Your task to perform on an android device: Open Amazon Image 0: 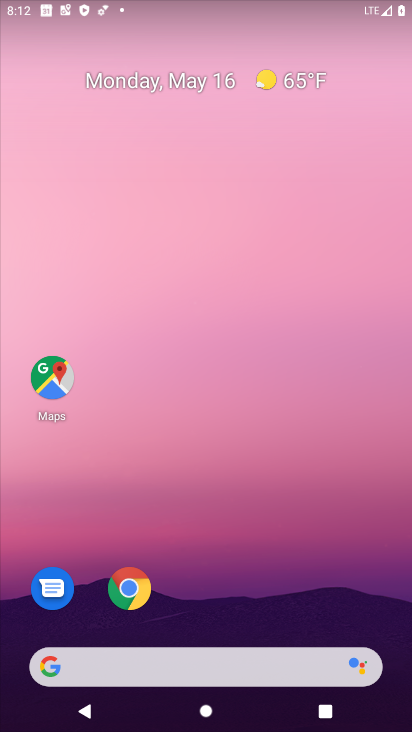
Step 0: drag from (226, 557) to (193, 0)
Your task to perform on an android device: Open Amazon Image 1: 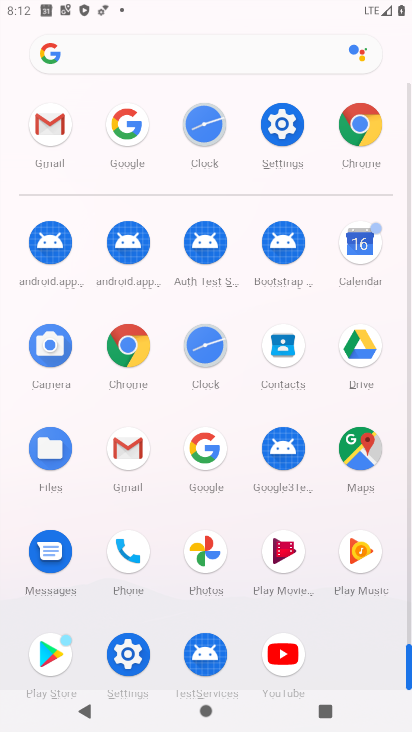
Step 1: click (131, 340)
Your task to perform on an android device: Open Amazon Image 2: 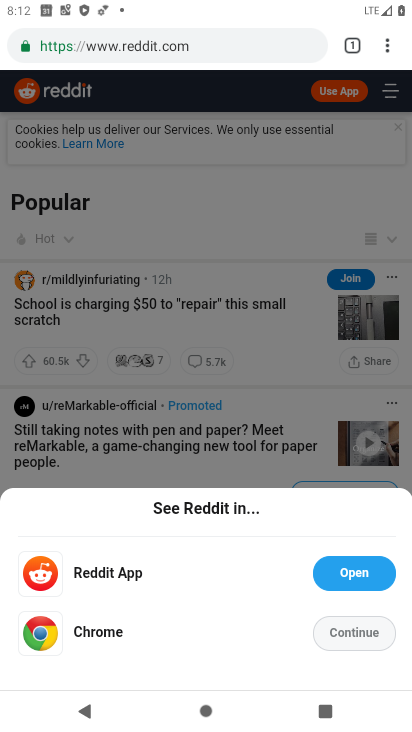
Step 2: click (172, 46)
Your task to perform on an android device: Open Amazon Image 3: 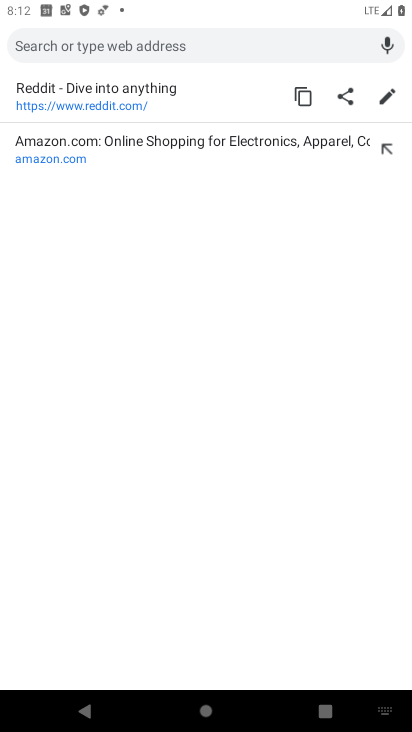
Step 3: click (157, 145)
Your task to perform on an android device: Open Amazon Image 4: 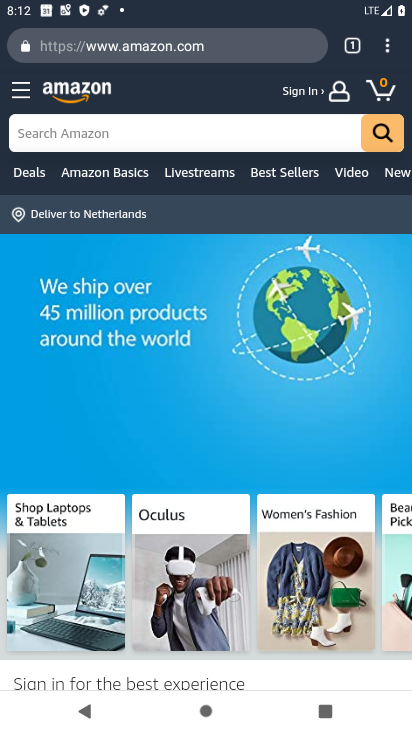
Step 4: task complete